Your task to perform on an android device: Open settings on Google Maps Image 0: 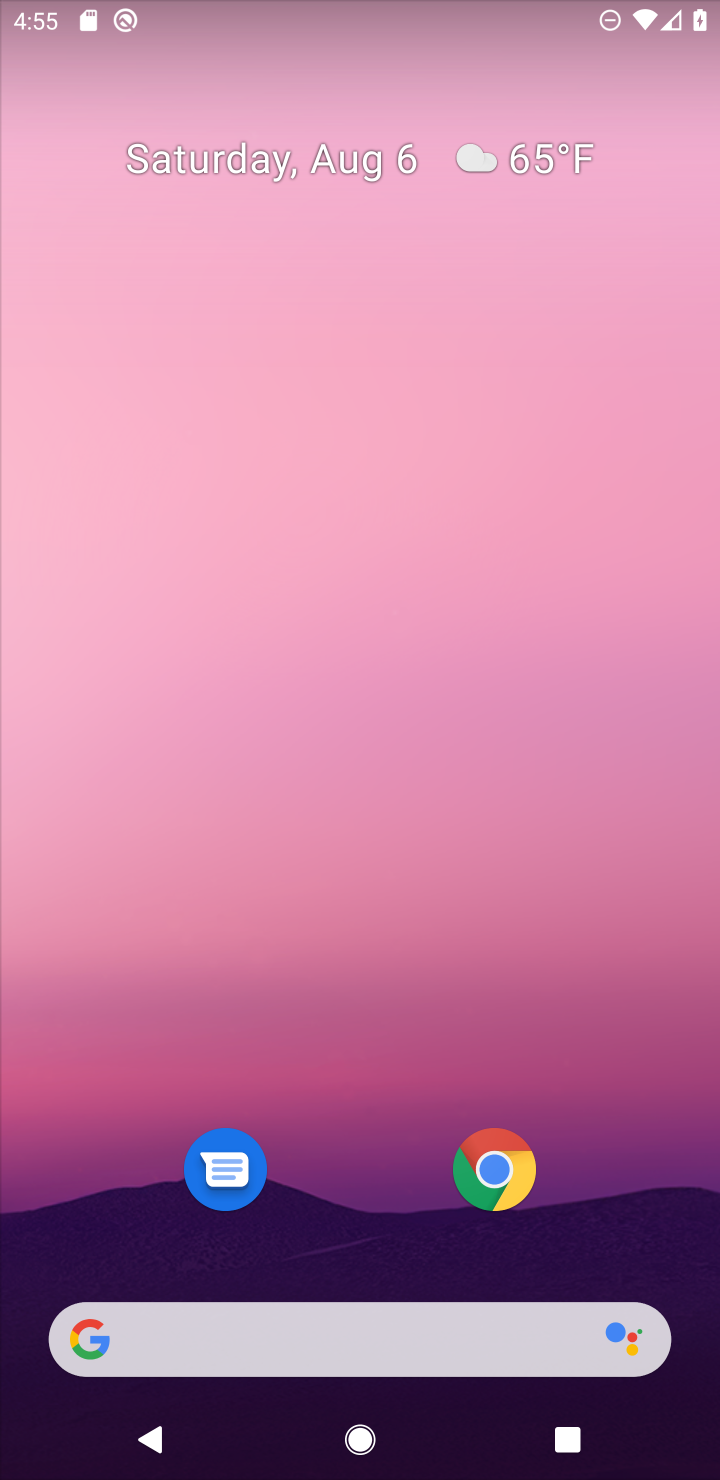
Step 0: drag from (368, 1181) to (368, 509)
Your task to perform on an android device: Open settings on Google Maps Image 1: 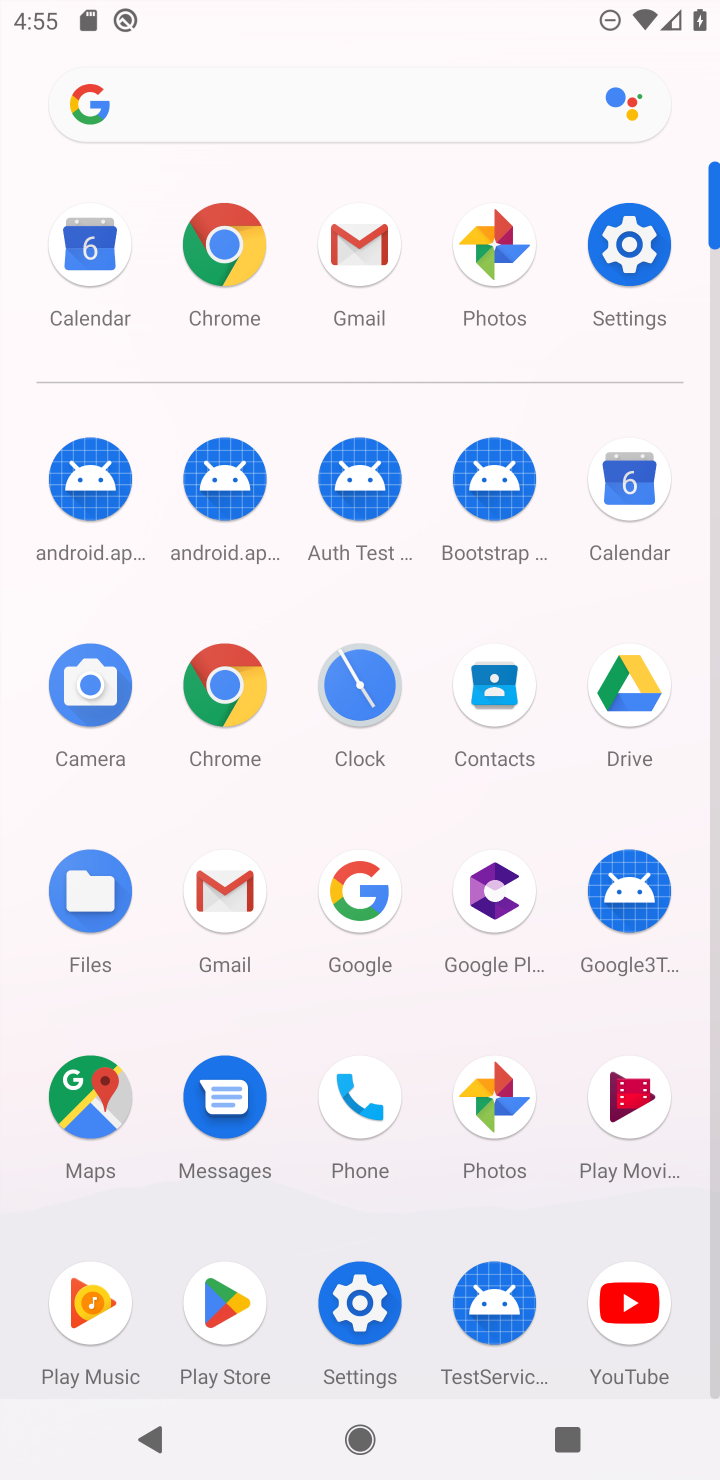
Step 1: click (100, 1115)
Your task to perform on an android device: Open settings on Google Maps Image 2: 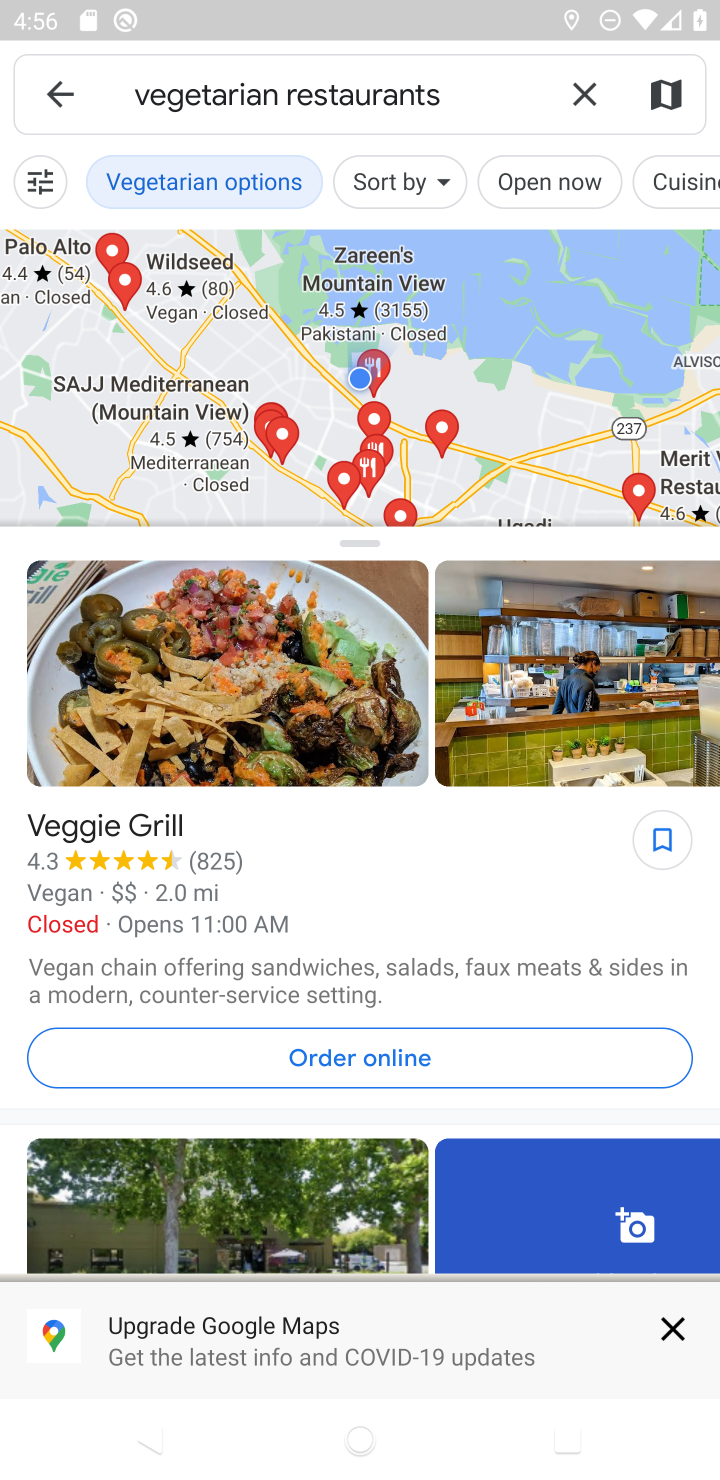
Step 2: click (81, 88)
Your task to perform on an android device: Open settings on Google Maps Image 3: 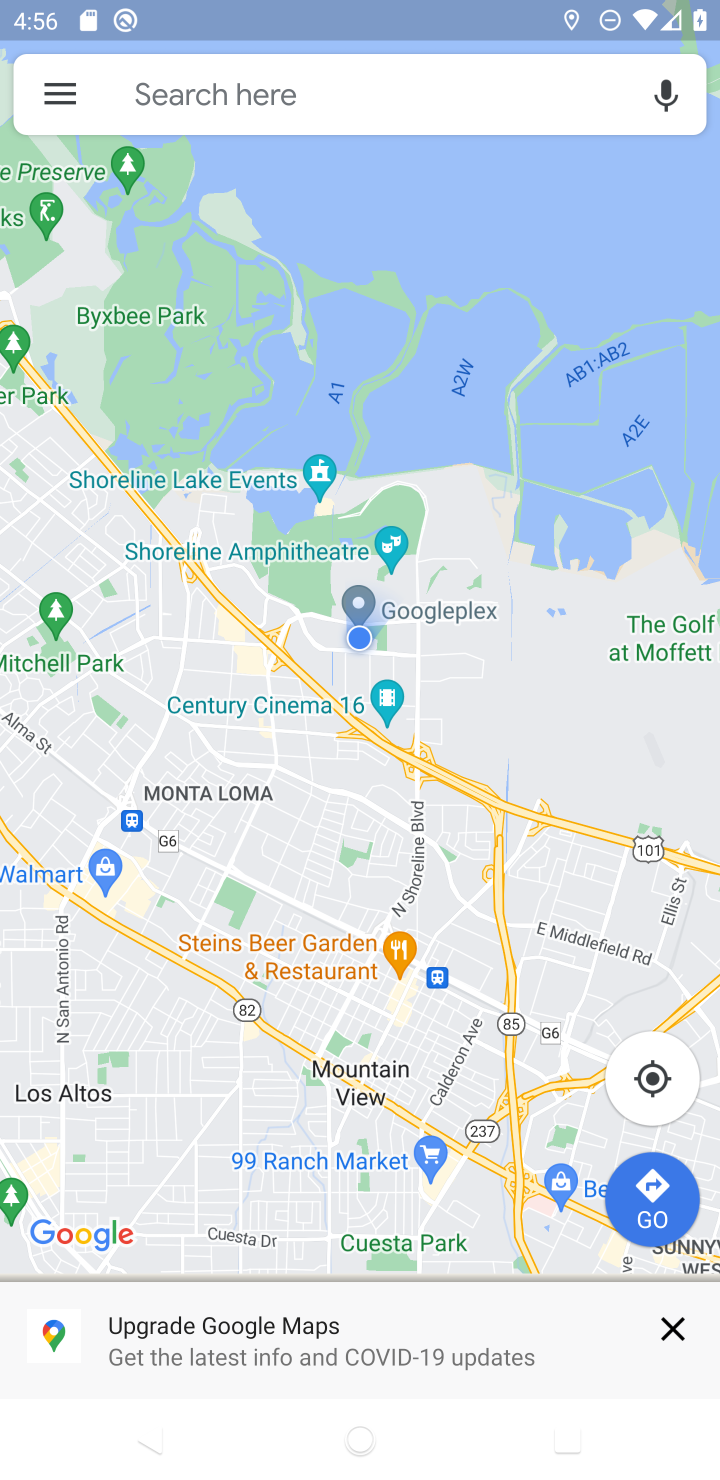
Step 3: click (48, 89)
Your task to perform on an android device: Open settings on Google Maps Image 4: 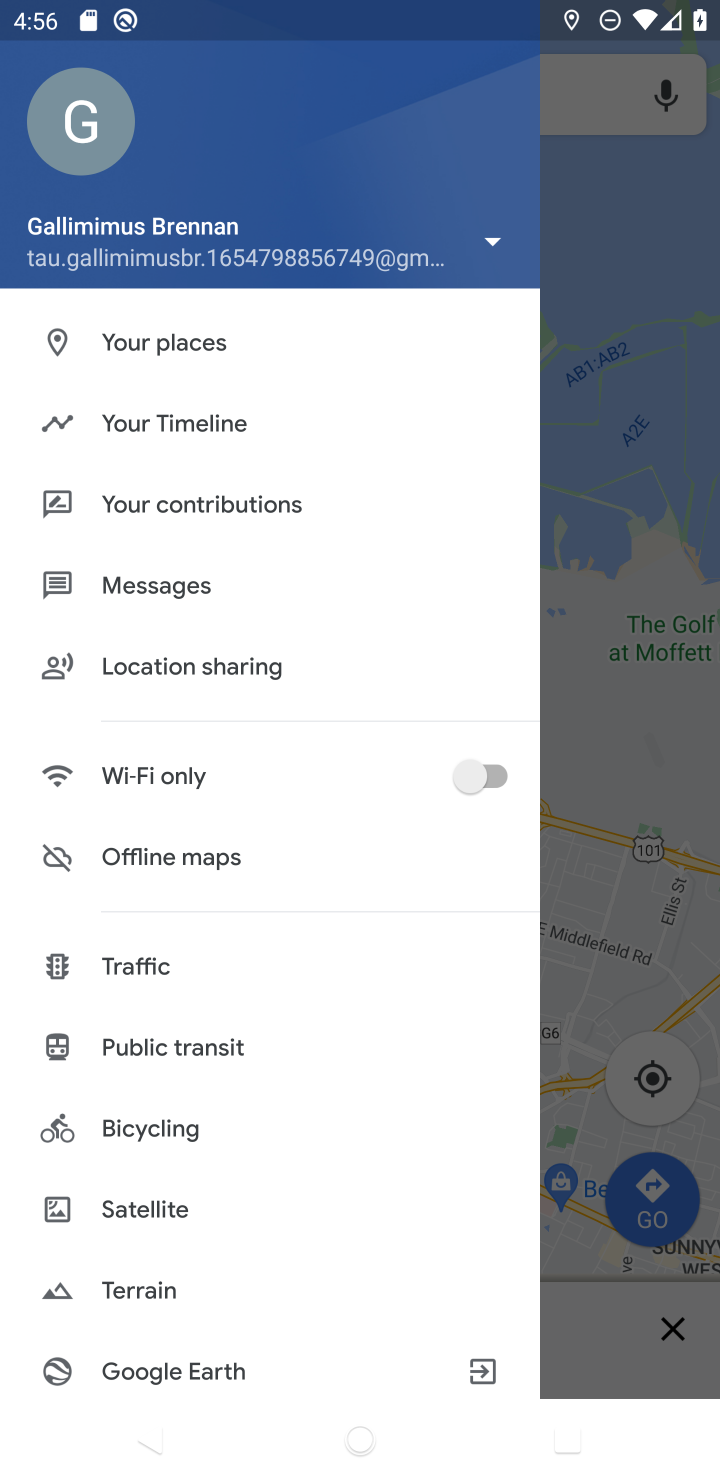
Step 4: drag from (272, 1245) to (254, 370)
Your task to perform on an android device: Open settings on Google Maps Image 5: 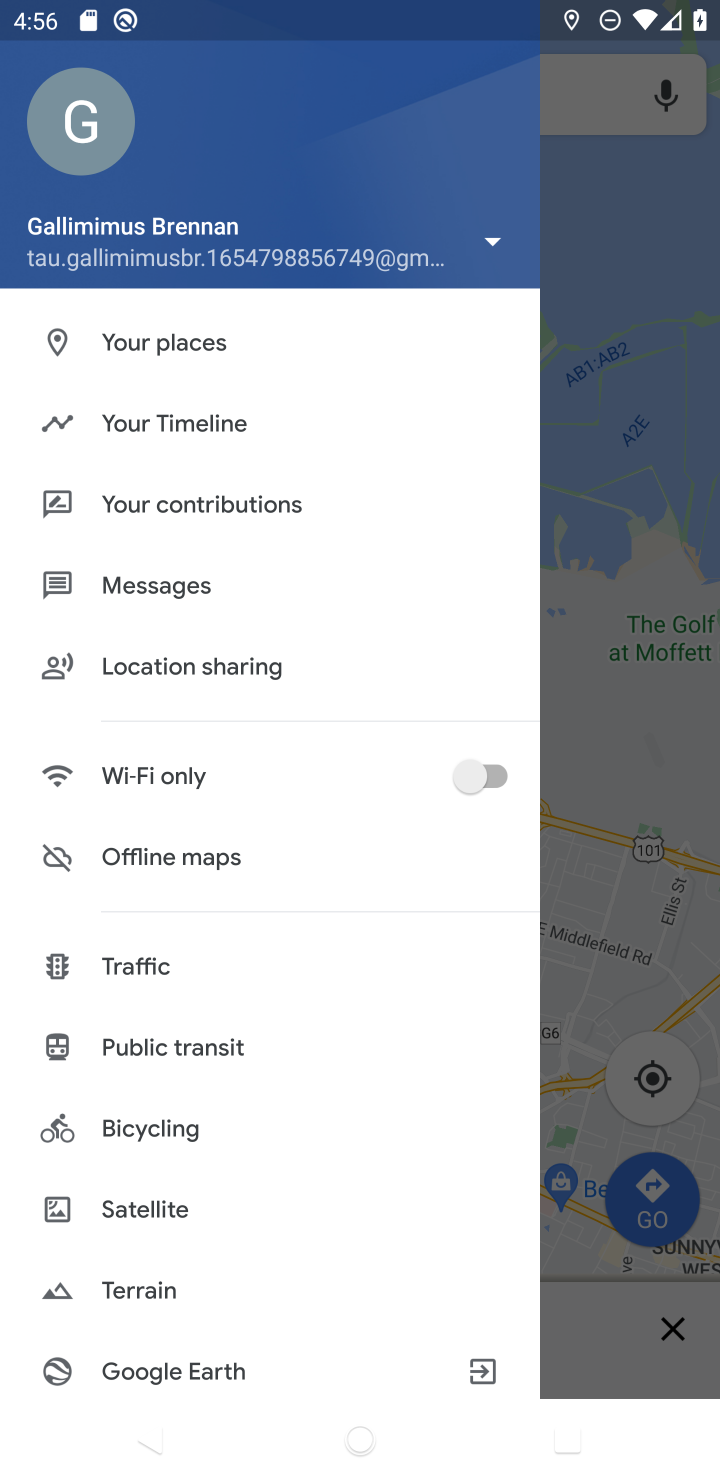
Step 5: drag from (176, 1200) to (152, 163)
Your task to perform on an android device: Open settings on Google Maps Image 6: 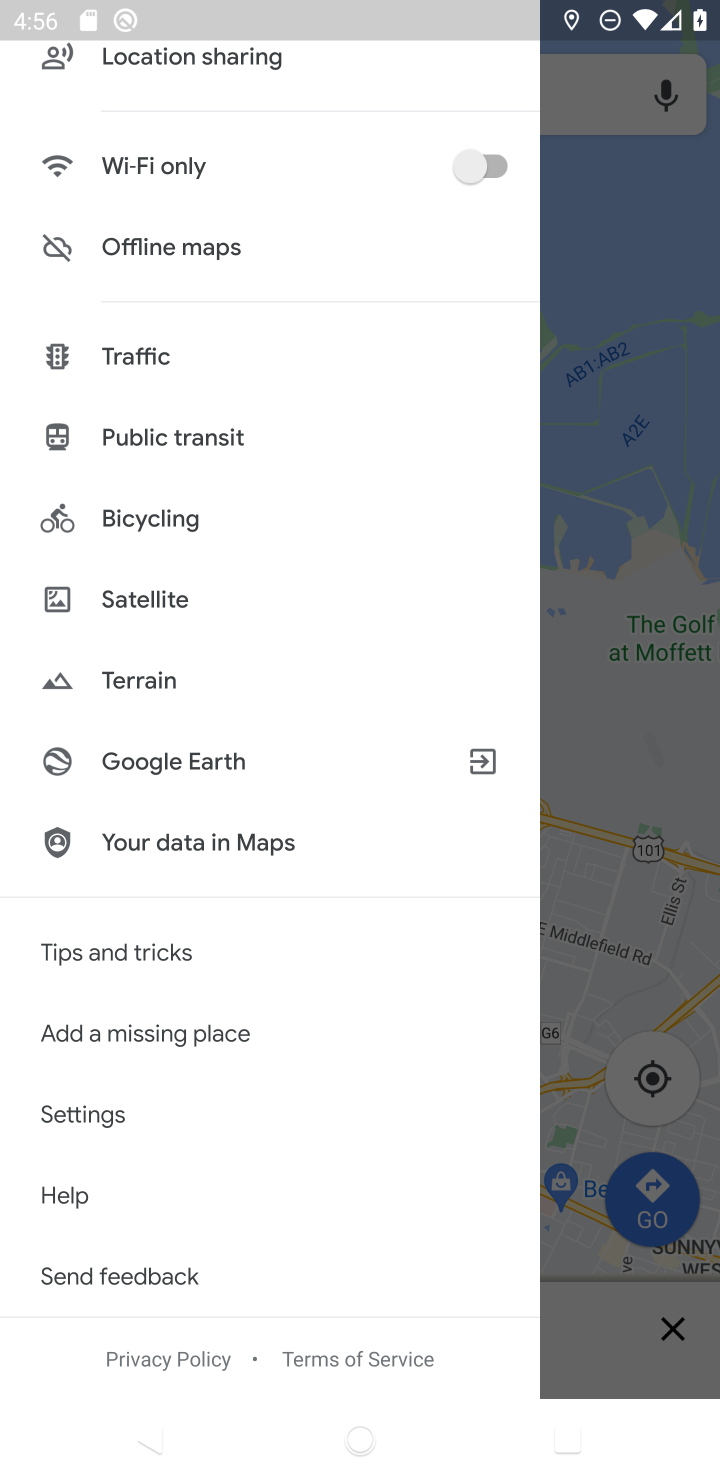
Step 6: click (136, 1111)
Your task to perform on an android device: Open settings on Google Maps Image 7: 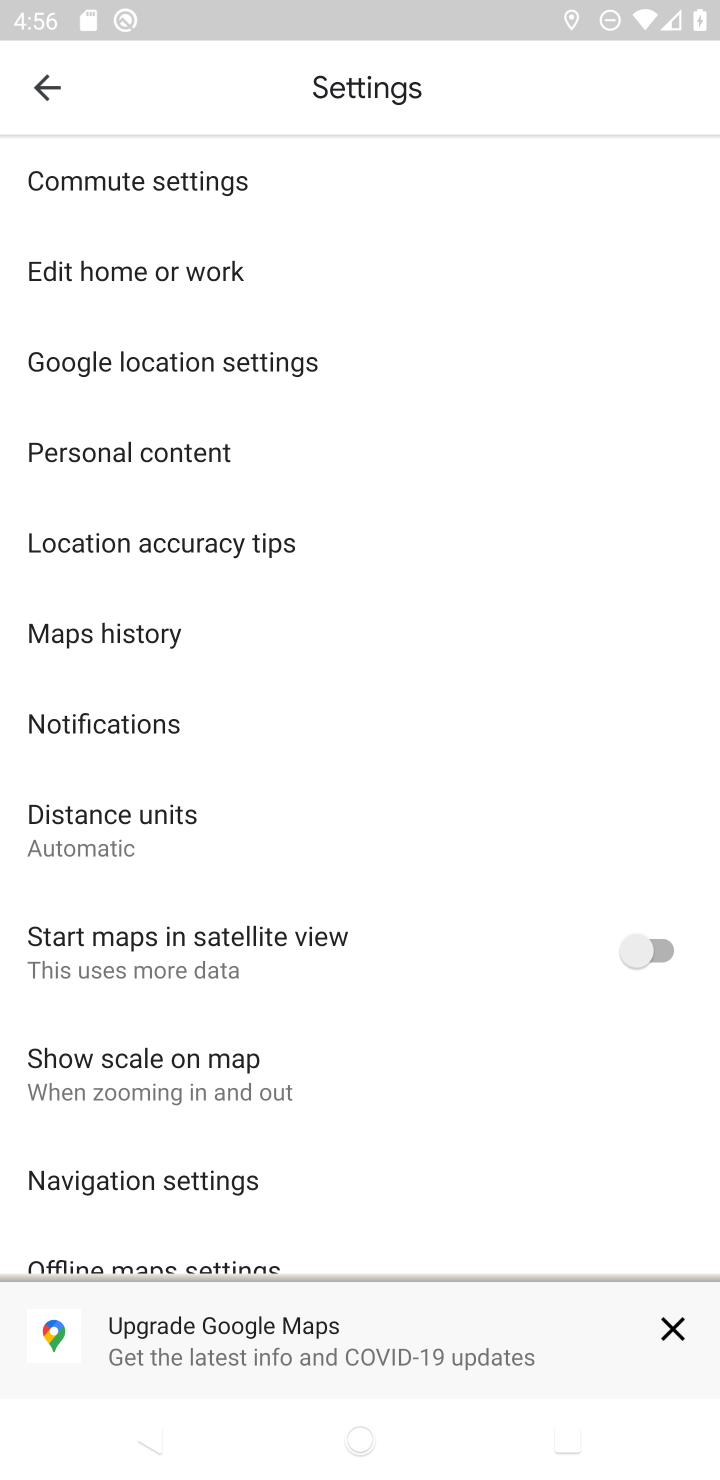
Step 7: task complete